Your task to perform on an android device: turn off notifications settings in the gmail app Image 0: 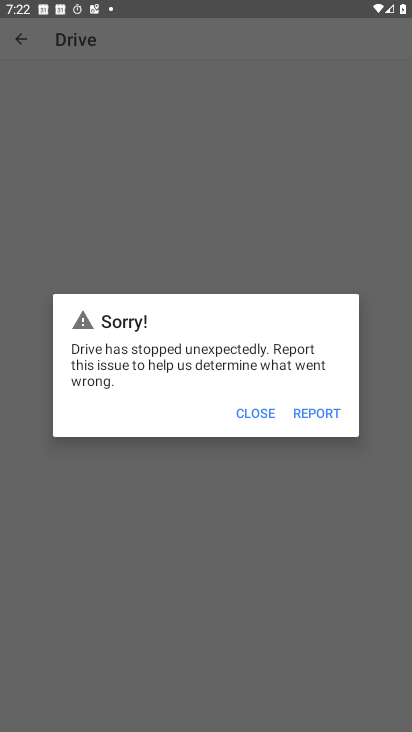
Step 0: press home button
Your task to perform on an android device: turn off notifications settings in the gmail app Image 1: 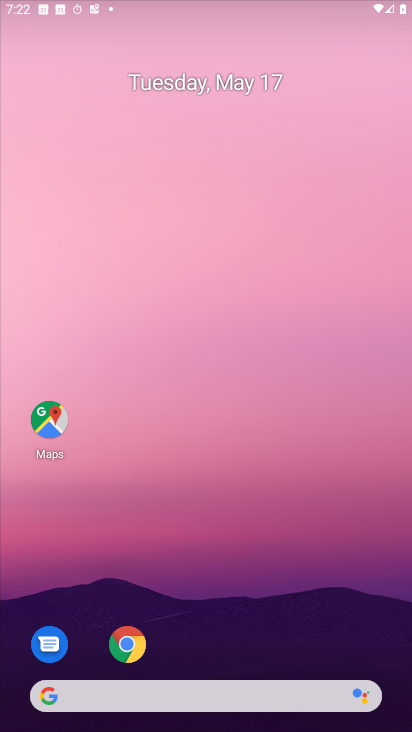
Step 1: drag from (353, 617) to (199, 35)
Your task to perform on an android device: turn off notifications settings in the gmail app Image 2: 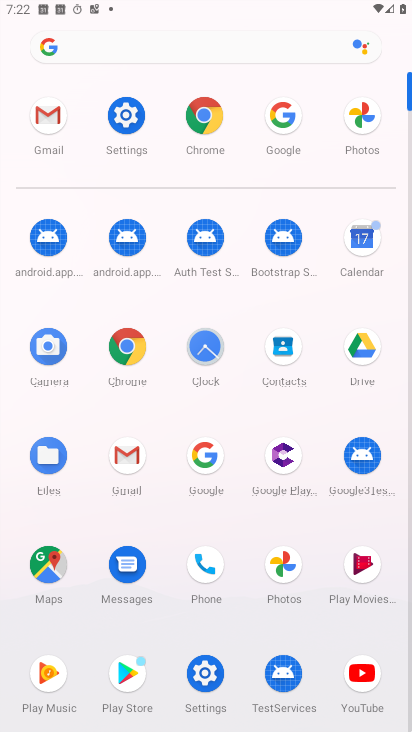
Step 2: click (137, 450)
Your task to perform on an android device: turn off notifications settings in the gmail app Image 3: 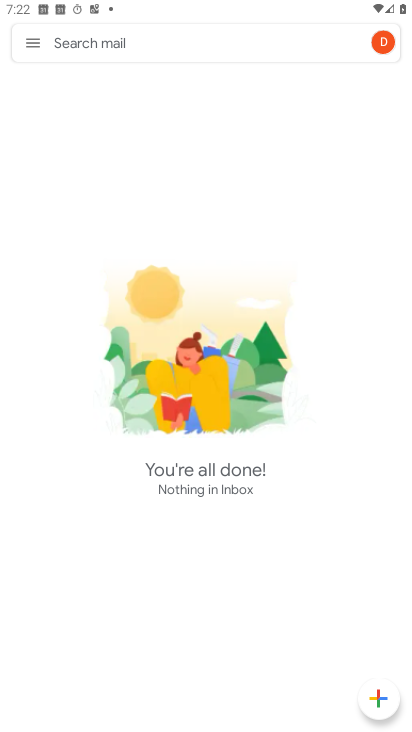
Step 3: click (38, 42)
Your task to perform on an android device: turn off notifications settings in the gmail app Image 4: 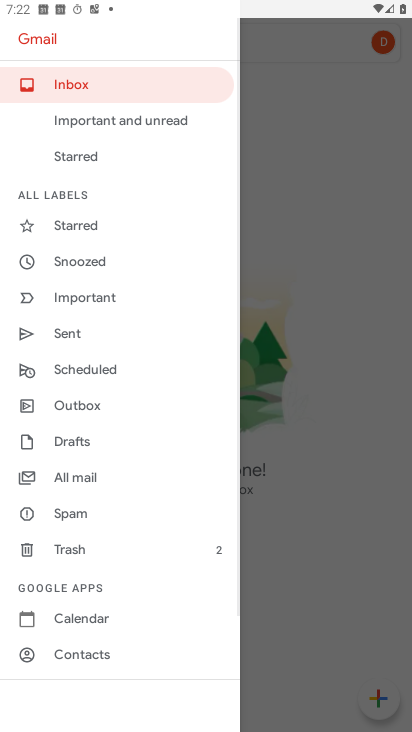
Step 4: drag from (105, 652) to (110, 184)
Your task to perform on an android device: turn off notifications settings in the gmail app Image 5: 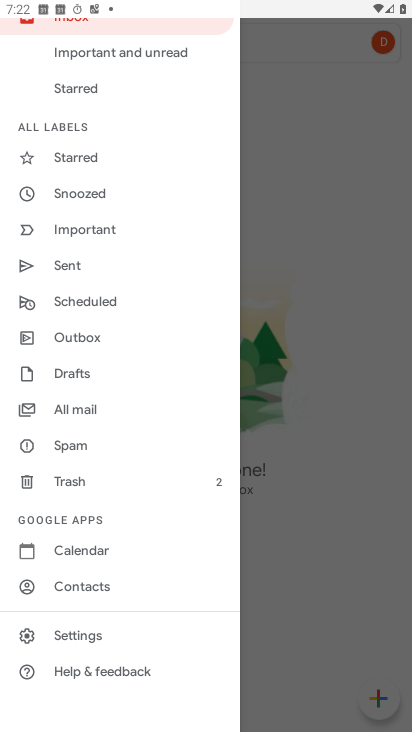
Step 5: click (89, 632)
Your task to perform on an android device: turn off notifications settings in the gmail app Image 6: 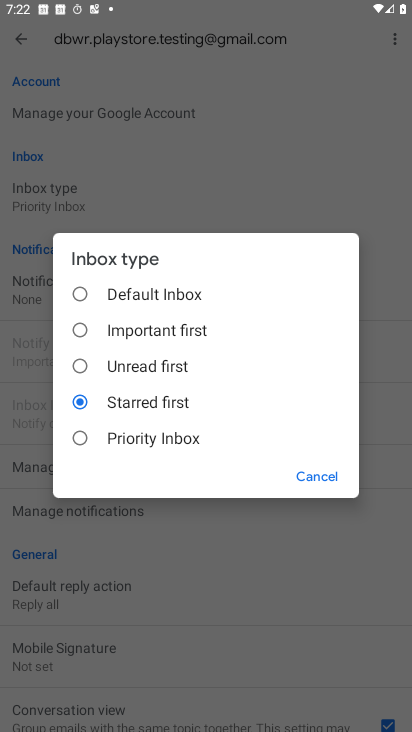
Step 6: click (310, 476)
Your task to perform on an android device: turn off notifications settings in the gmail app Image 7: 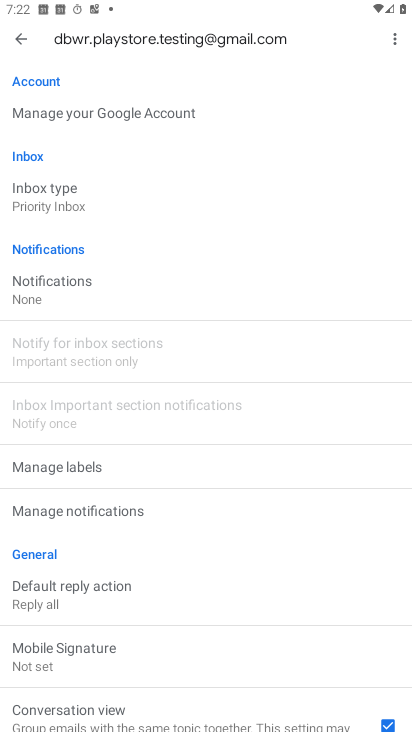
Step 7: click (86, 289)
Your task to perform on an android device: turn off notifications settings in the gmail app Image 8: 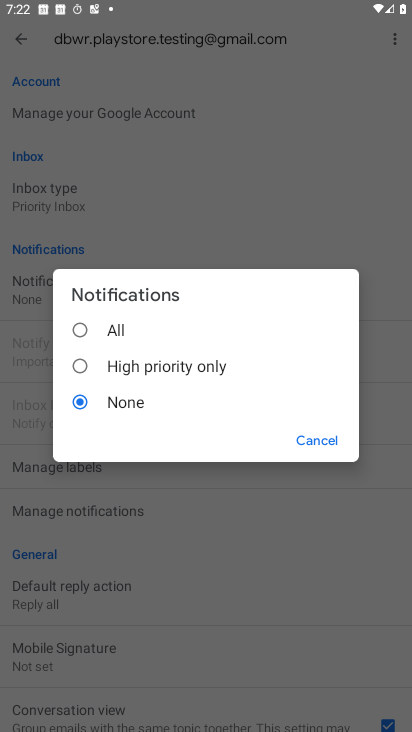
Step 8: task complete